Your task to perform on an android device: Open ESPN.com Image 0: 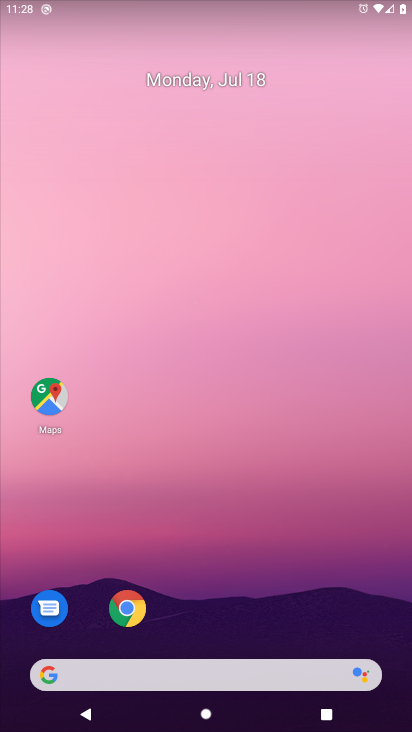
Step 0: click (92, 679)
Your task to perform on an android device: Open ESPN.com Image 1: 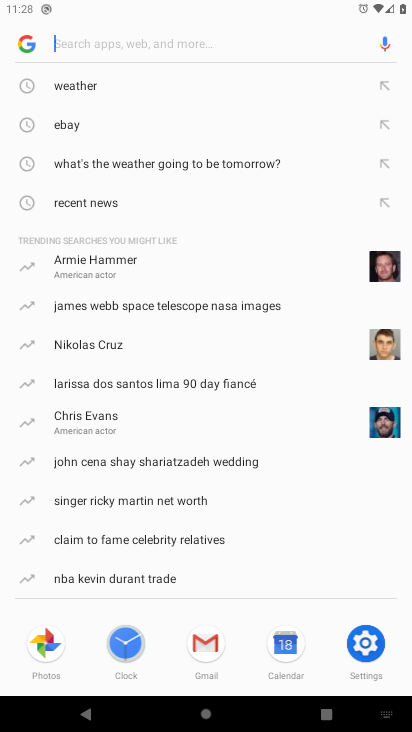
Step 1: type "ESPN.com"
Your task to perform on an android device: Open ESPN.com Image 2: 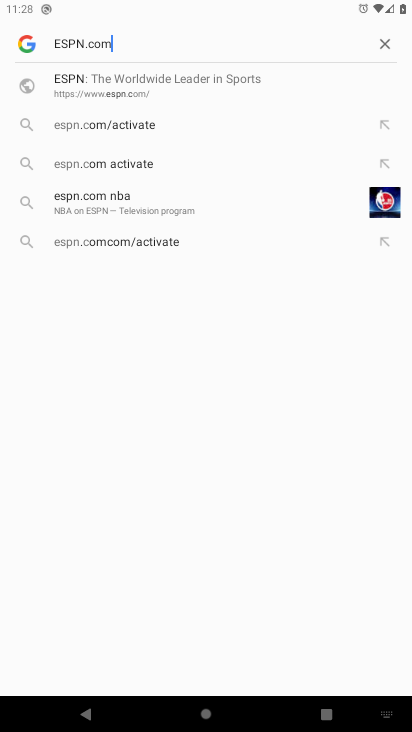
Step 2: type ""
Your task to perform on an android device: Open ESPN.com Image 3: 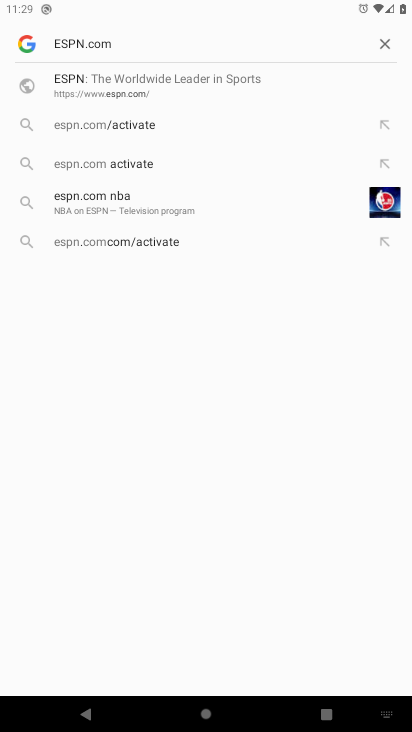
Step 3: click (68, 71)
Your task to perform on an android device: Open ESPN.com Image 4: 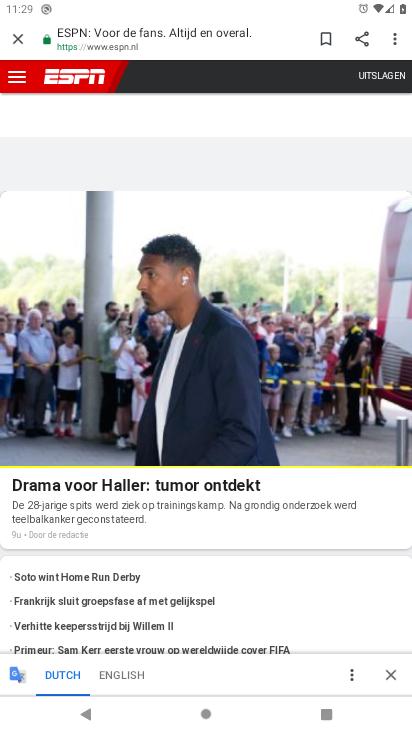
Step 4: task complete